Your task to perform on an android device: Show me the alarms in the clock app Image 0: 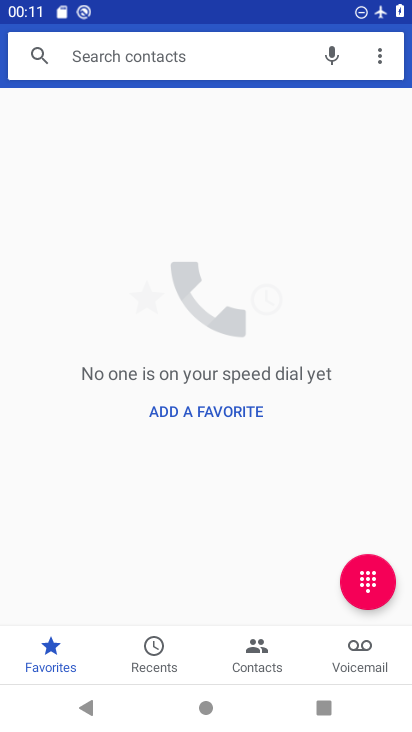
Step 0: press home button
Your task to perform on an android device: Show me the alarms in the clock app Image 1: 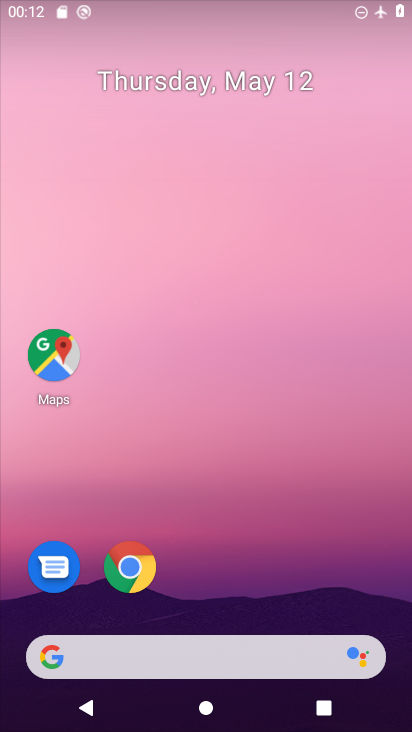
Step 1: drag from (165, 637) to (163, 11)
Your task to perform on an android device: Show me the alarms in the clock app Image 2: 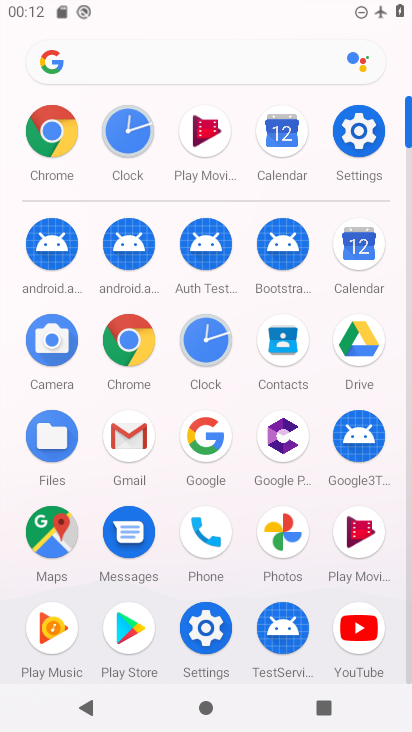
Step 2: click (214, 333)
Your task to perform on an android device: Show me the alarms in the clock app Image 3: 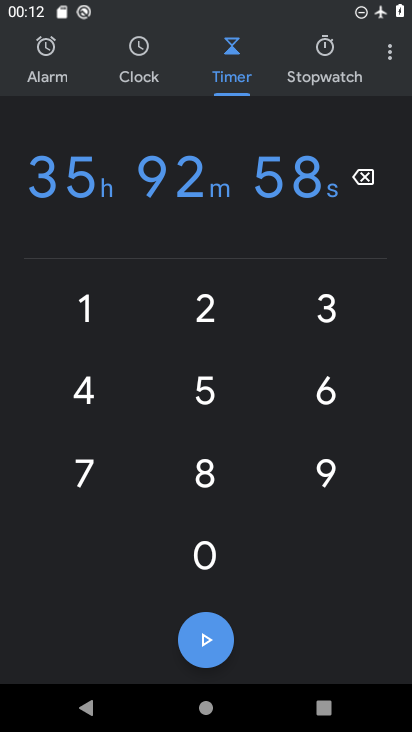
Step 3: click (60, 65)
Your task to perform on an android device: Show me the alarms in the clock app Image 4: 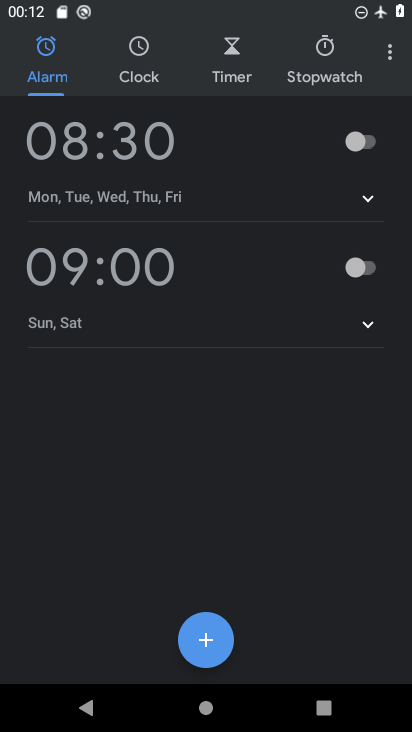
Step 4: task complete